Your task to perform on an android device: Open Yahoo.com Image 0: 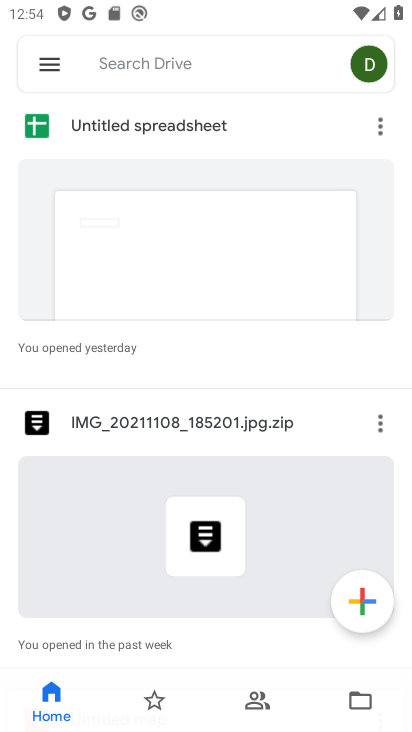
Step 0: press home button
Your task to perform on an android device: Open Yahoo.com Image 1: 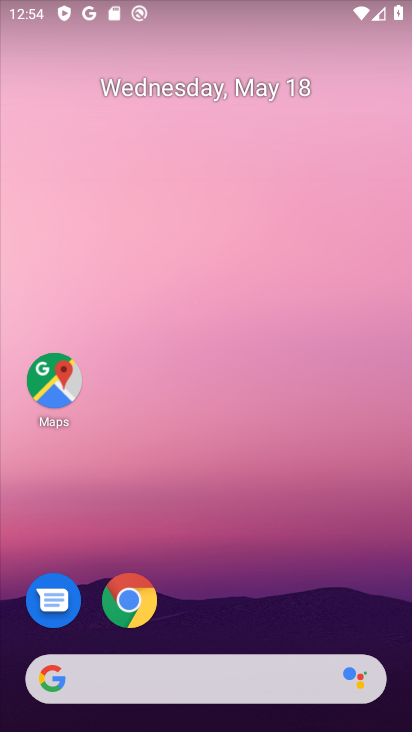
Step 1: click (126, 601)
Your task to perform on an android device: Open Yahoo.com Image 2: 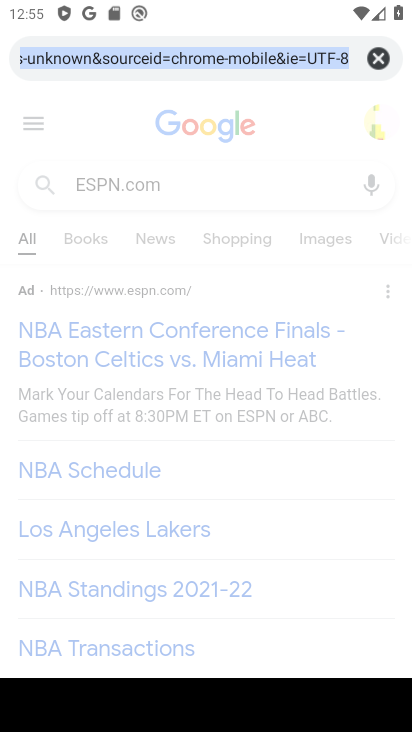
Step 2: type "Yahoo.com"
Your task to perform on an android device: Open Yahoo.com Image 3: 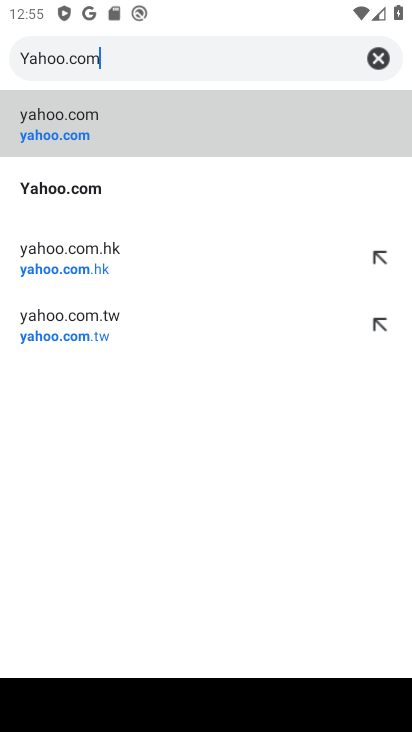
Step 3: click (131, 124)
Your task to perform on an android device: Open Yahoo.com Image 4: 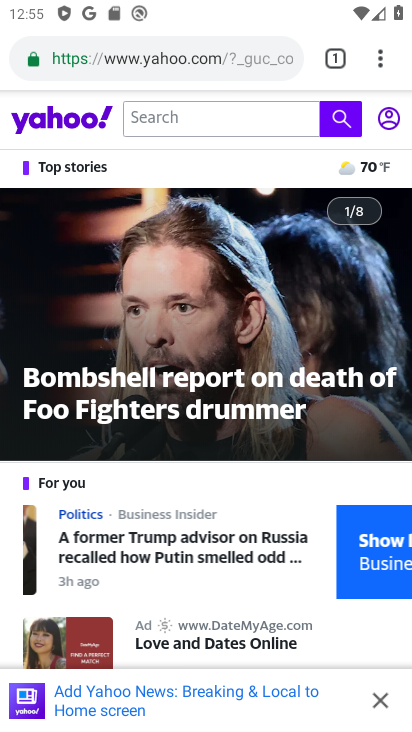
Step 4: task complete